Your task to perform on an android device: toggle sleep mode Image 0: 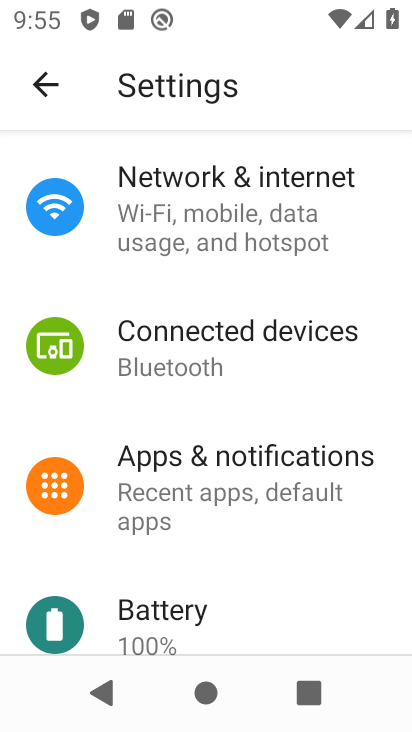
Step 0: drag from (237, 465) to (245, 158)
Your task to perform on an android device: toggle sleep mode Image 1: 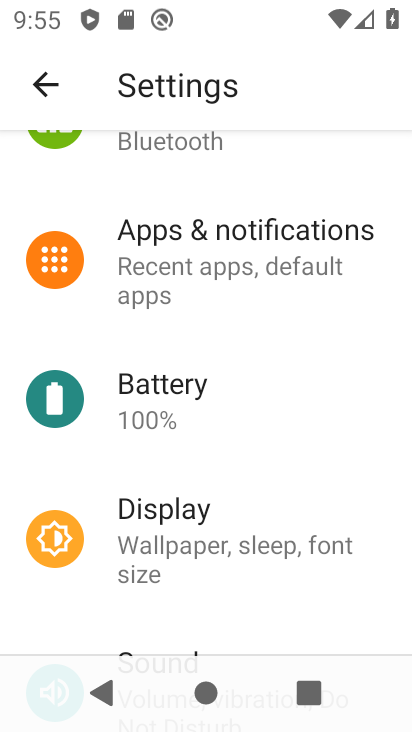
Step 1: click (246, 530)
Your task to perform on an android device: toggle sleep mode Image 2: 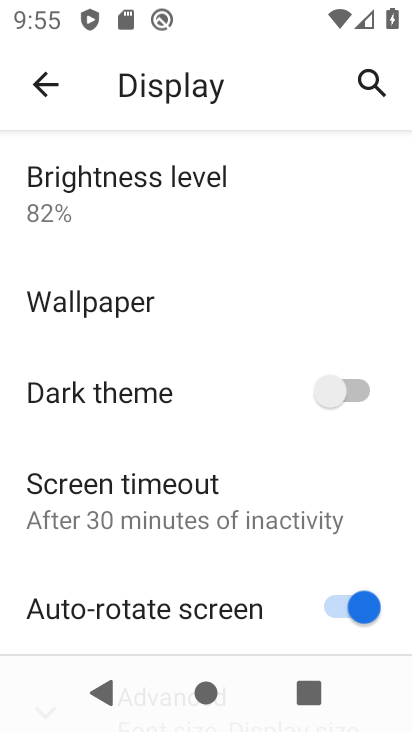
Step 2: task complete